Your task to perform on an android device: read, delete, or share a saved page in the chrome app Image 0: 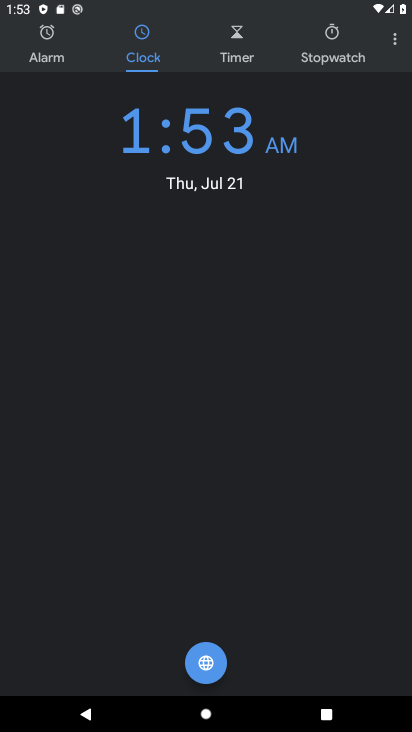
Step 0: press home button
Your task to perform on an android device: read, delete, or share a saved page in the chrome app Image 1: 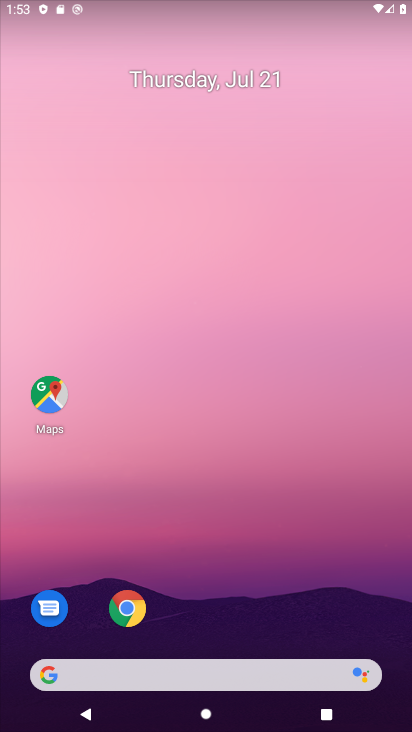
Step 1: click (128, 607)
Your task to perform on an android device: read, delete, or share a saved page in the chrome app Image 2: 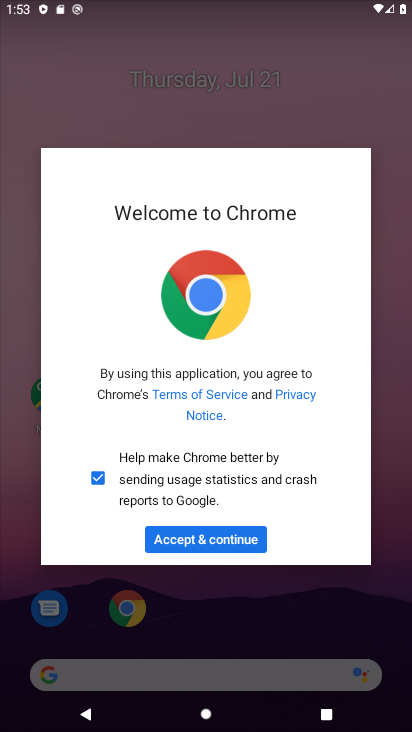
Step 2: click (208, 538)
Your task to perform on an android device: read, delete, or share a saved page in the chrome app Image 3: 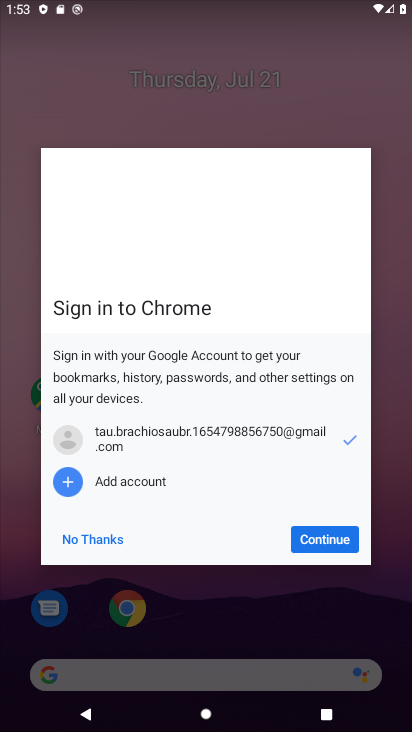
Step 3: click (301, 534)
Your task to perform on an android device: read, delete, or share a saved page in the chrome app Image 4: 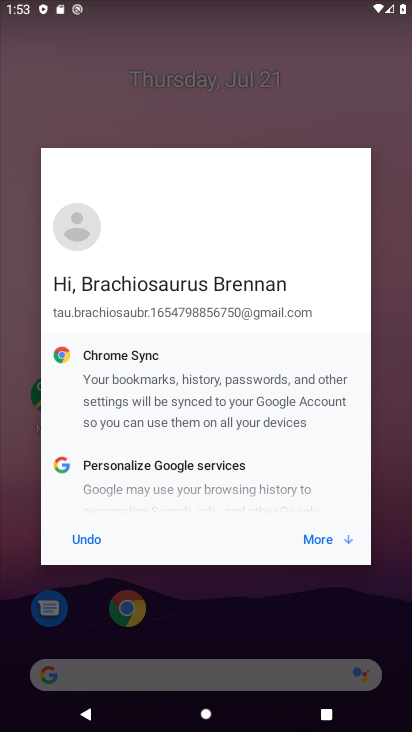
Step 4: click (336, 545)
Your task to perform on an android device: read, delete, or share a saved page in the chrome app Image 5: 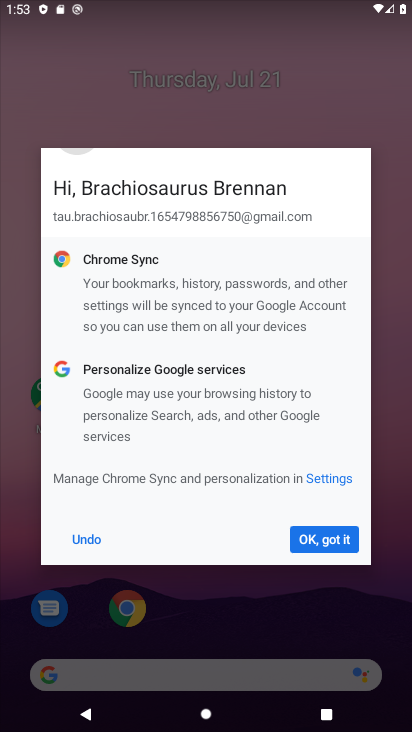
Step 5: click (335, 545)
Your task to perform on an android device: read, delete, or share a saved page in the chrome app Image 6: 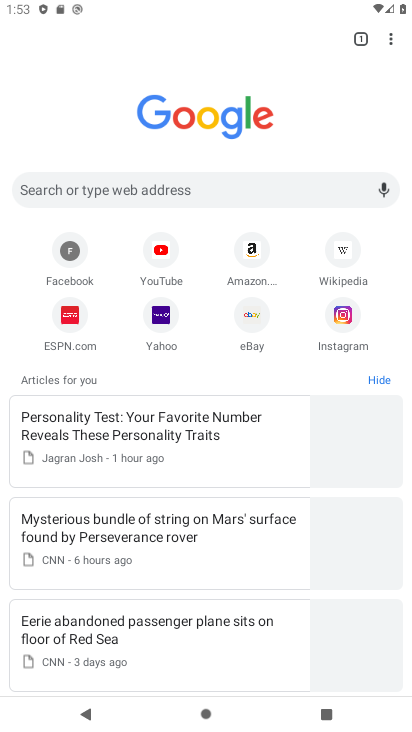
Step 6: click (393, 33)
Your task to perform on an android device: read, delete, or share a saved page in the chrome app Image 7: 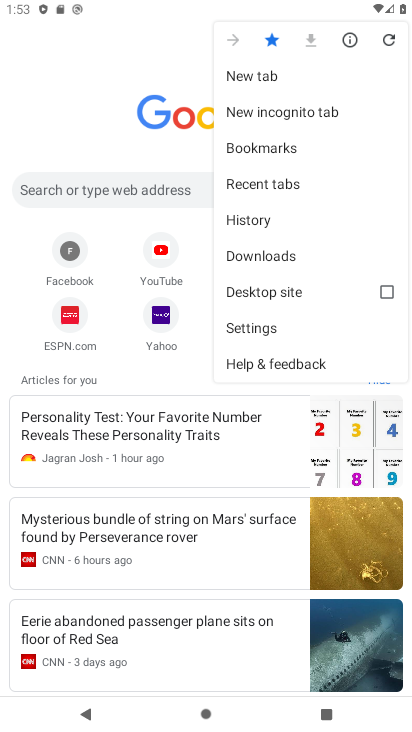
Step 7: click (251, 257)
Your task to perform on an android device: read, delete, or share a saved page in the chrome app Image 8: 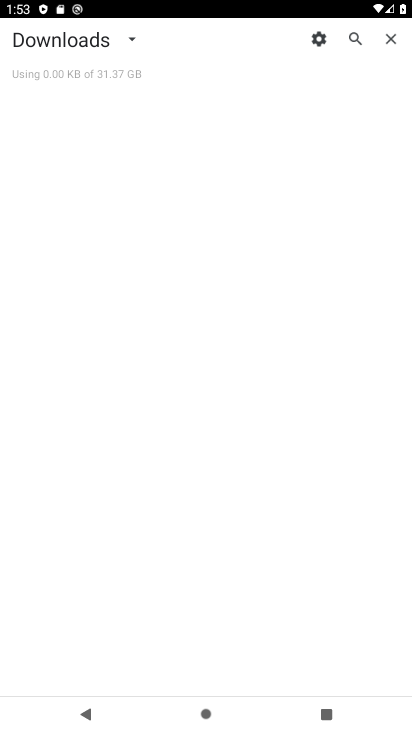
Step 8: task complete